Your task to perform on an android device: Open network settings Image 0: 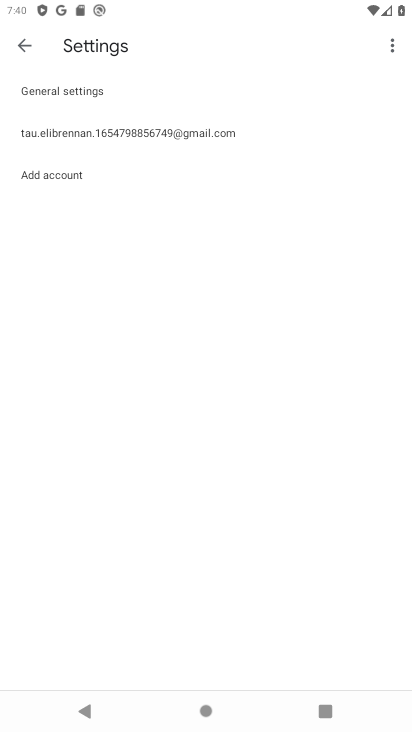
Step 0: press home button
Your task to perform on an android device: Open network settings Image 1: 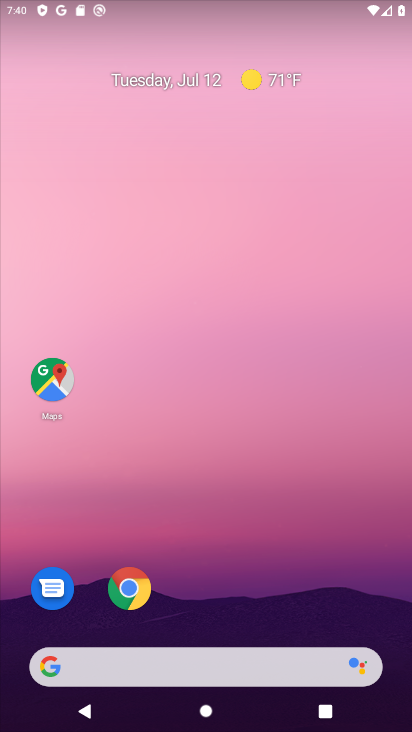
Step 1: drag from (51, 669) to (174, 200)
Your task to perform on an android device: Open network settings Image 2: 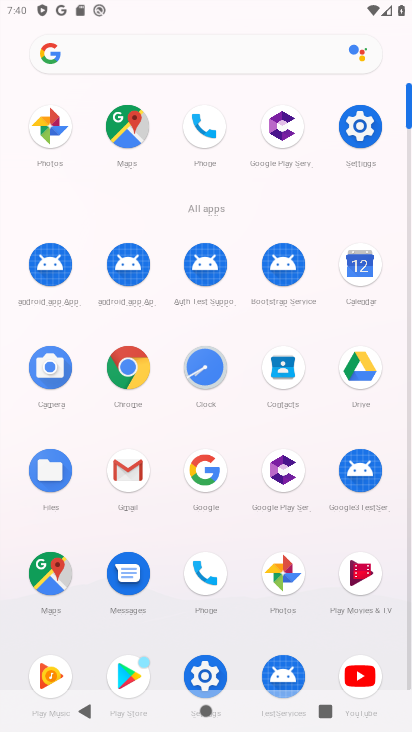
Step 2: click (207, 679)
Your task to perform on an android device: Open network settings Image 3: 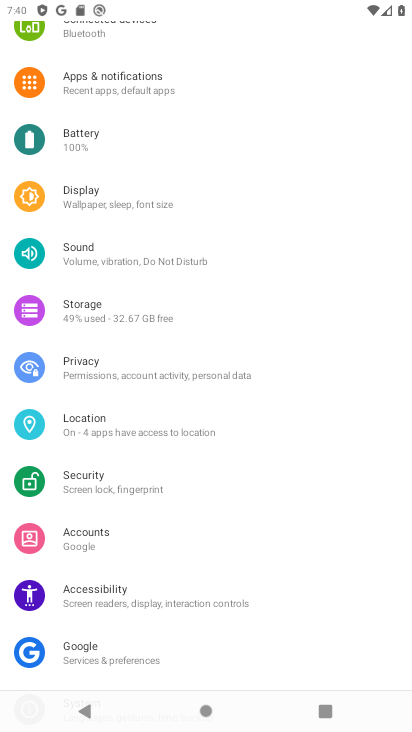
Step 3: drag from (272, 81) to (273, 687)
Your task to perform on an android device: Open network settings Image 4: 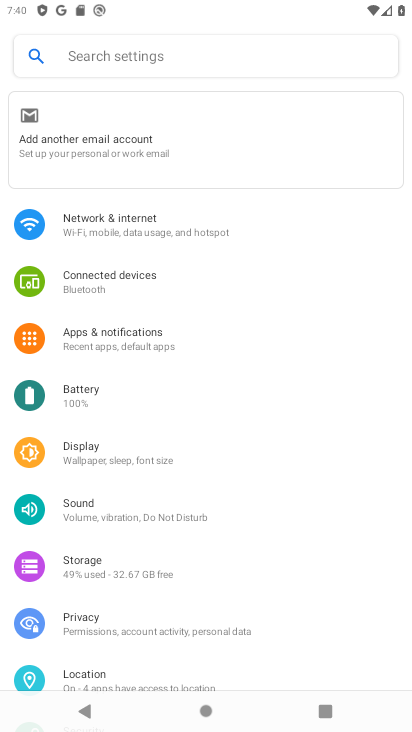
Step 4: click (91, 229)
Your task to perform on an android device: Open network settings Image 5: 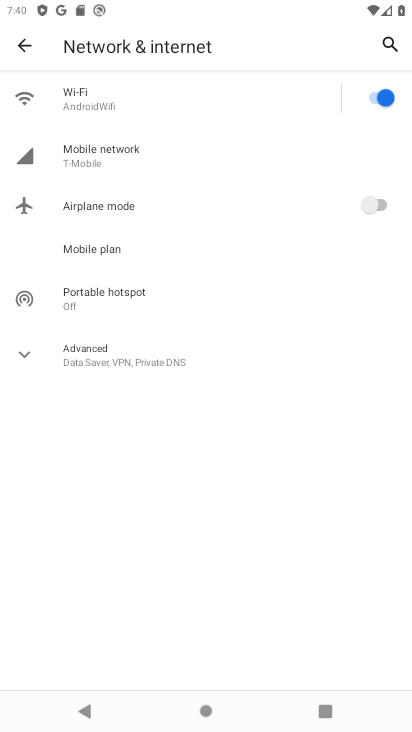
Step 5: task complete